Your task to perform on an android device: Open Google Maps Image 0: 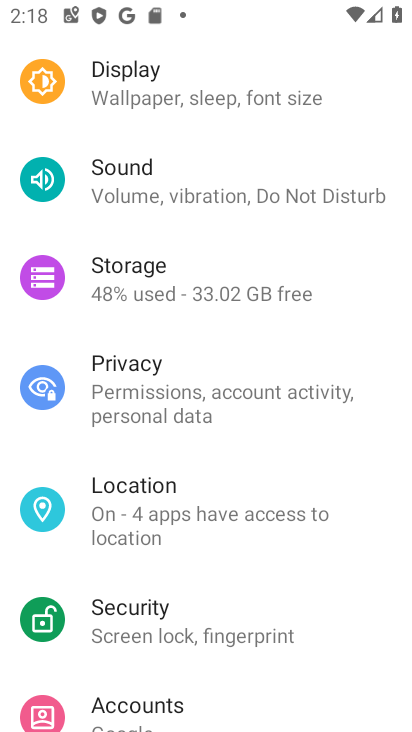
Step 0: drag from (279, 590) to (234, 199)
Your task to perform on an android device: Open Google Maps Image 1: 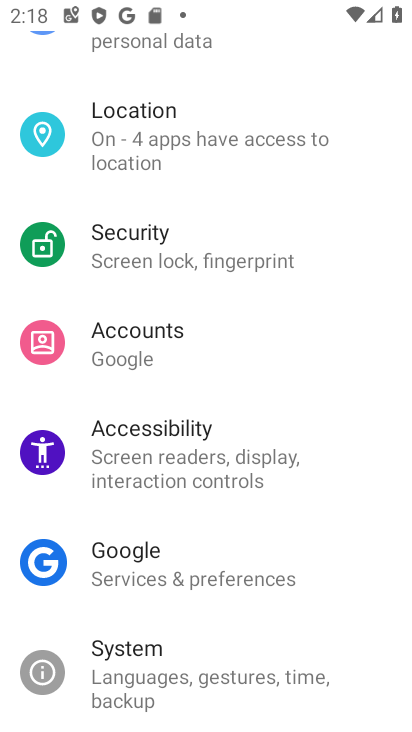
Step 1: press home button
Your task to perform on an android device: Open Google Maps Image 2: 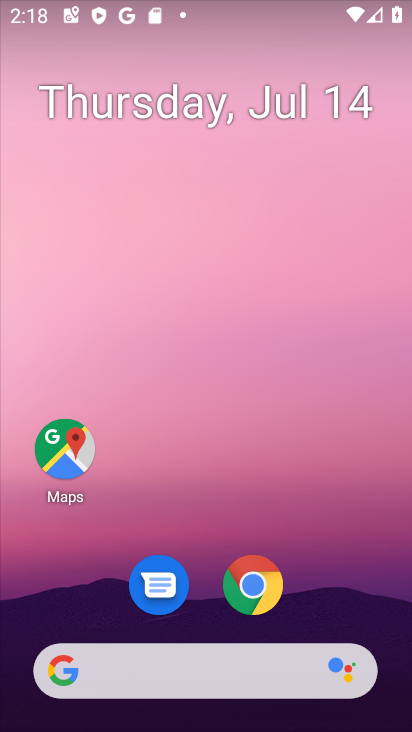
Step 2: click (66, 458)
Your task to perform on an android device: Open Google Maps Image 3: 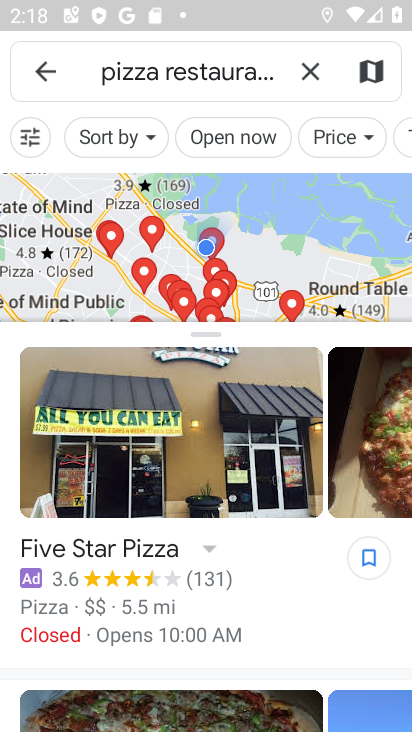
Step 3: click (312, 68)
Your task to perform on an android device: Open Google Maps Image 4: 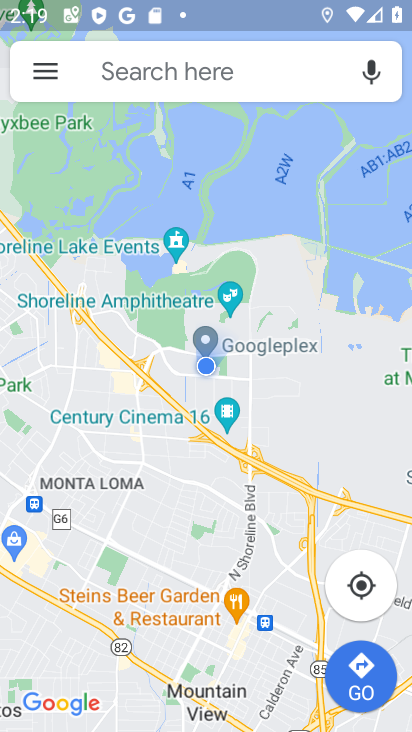
Step 4: task complete